Your task to perform on an android device: What's US dollar exchange rate against the South Korean Won? Image 0: 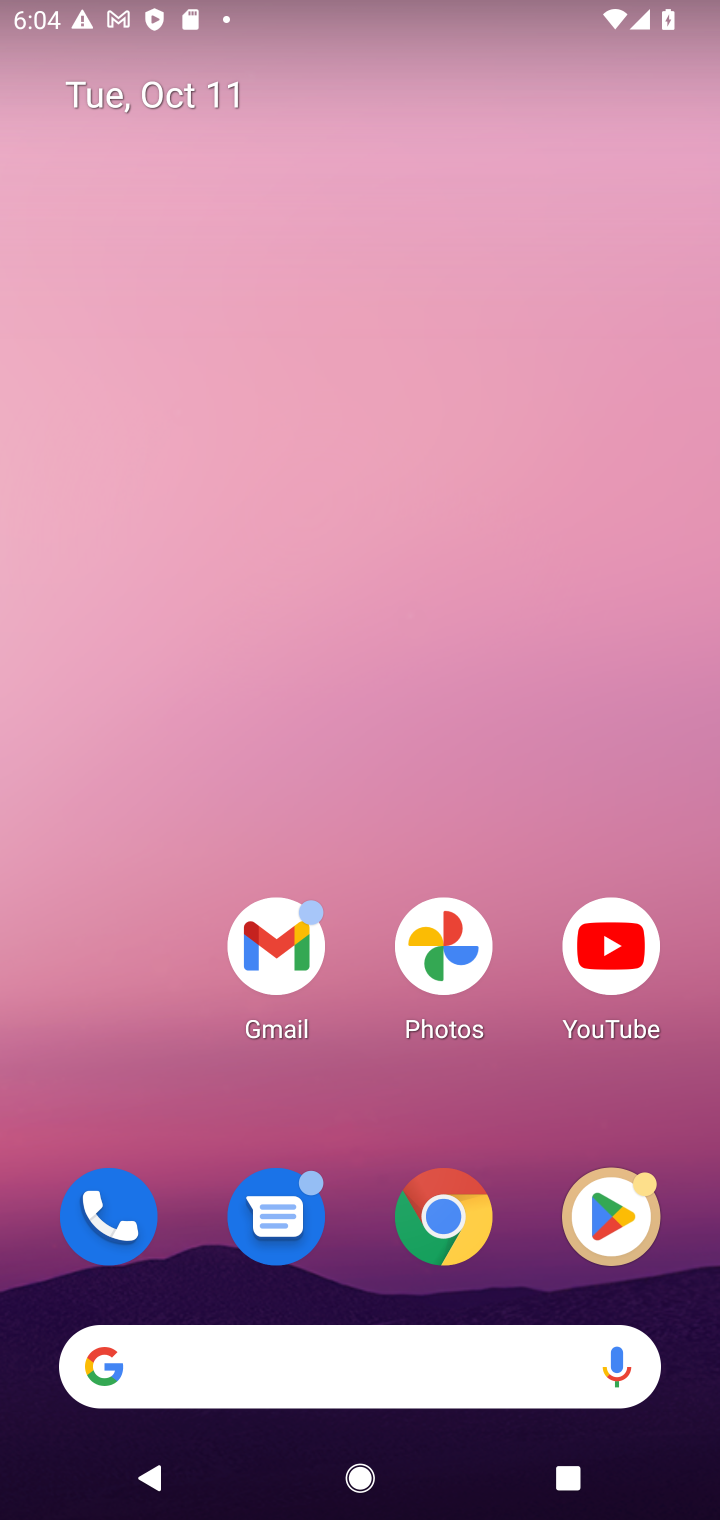
Step 0: click (442, 1211)
Your task to perform on an android device: What's US dollar exchange rate against the South Korean Won? Image 1: 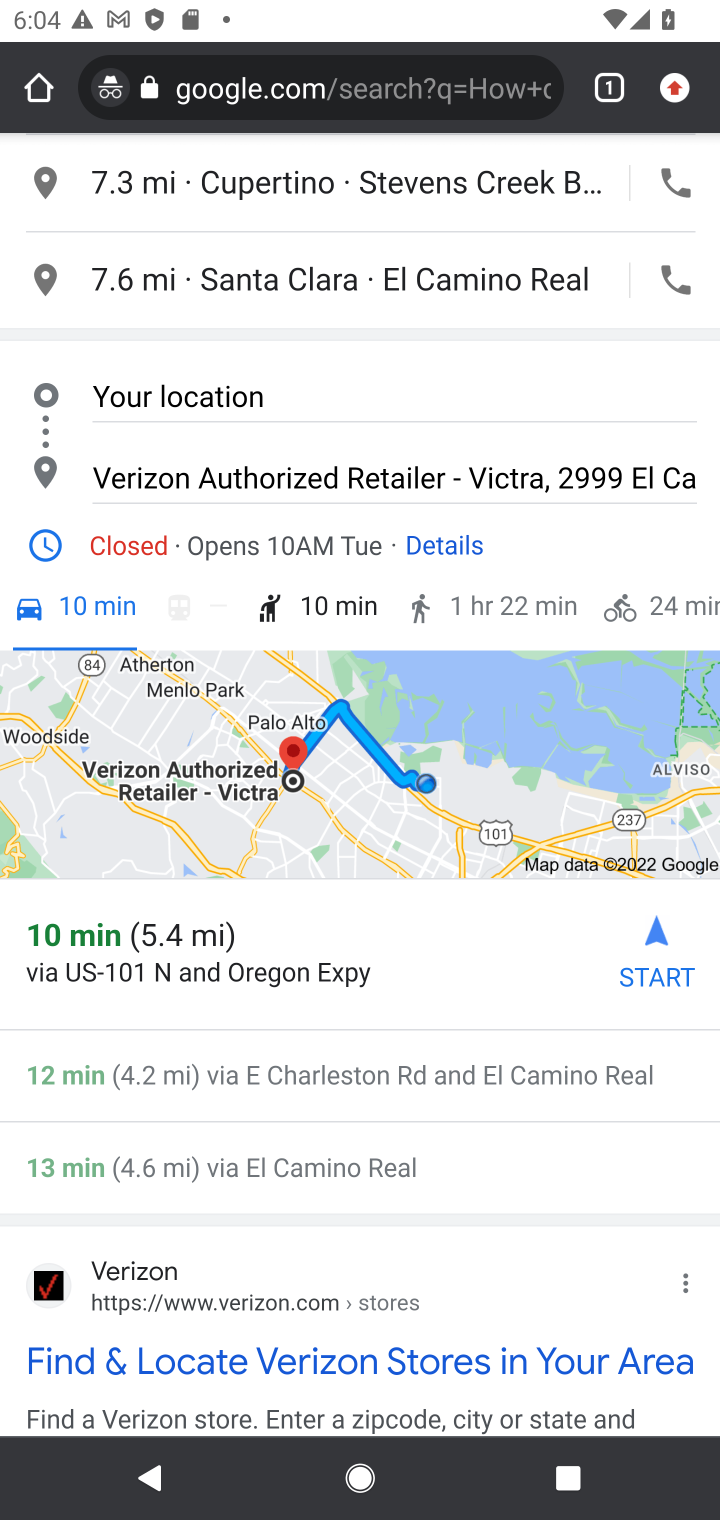
Step 1: click (382, 99)
Your task to perform on an android device: What's US dollar exchange rate against the South Korean Won? Image 2: 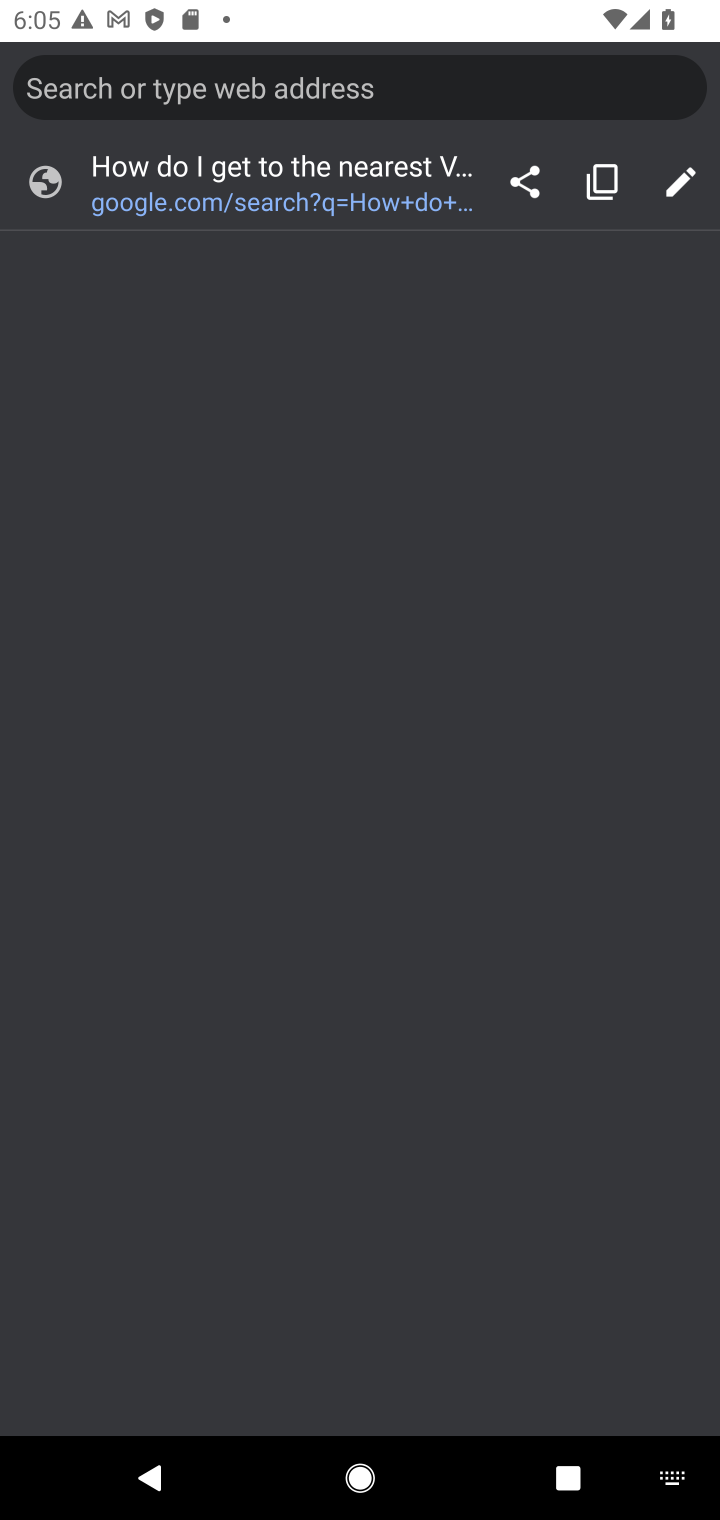
Step 2: type "What's US dollar exchange rate against the South Korean Won?"
Your task to perform on an android device: What's US dollar exchange rate against the South Korean Won? Image 3: 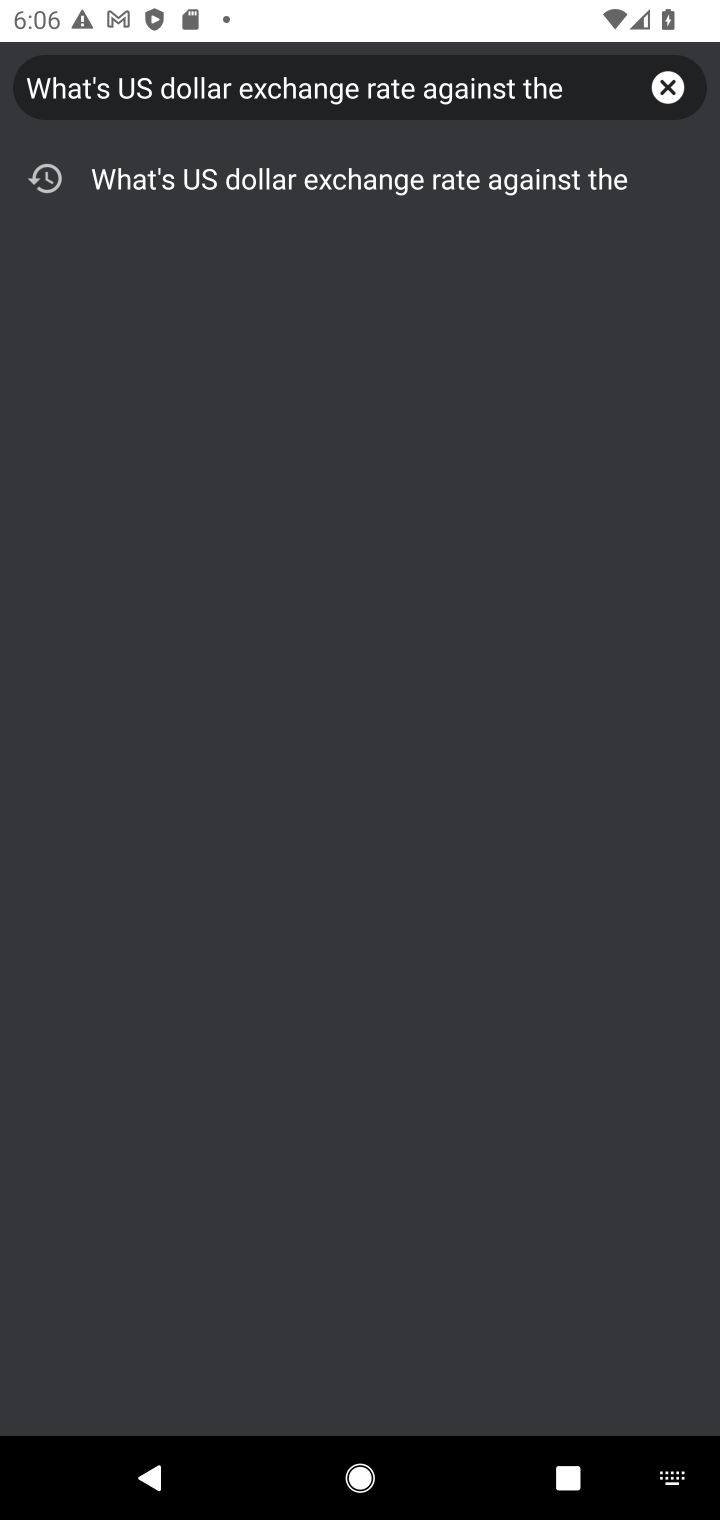
Step 3: type "South Korean Won?"
Your task to perform on an android device: What's US dollar exchange rate against the South Korean Won? Image 4: 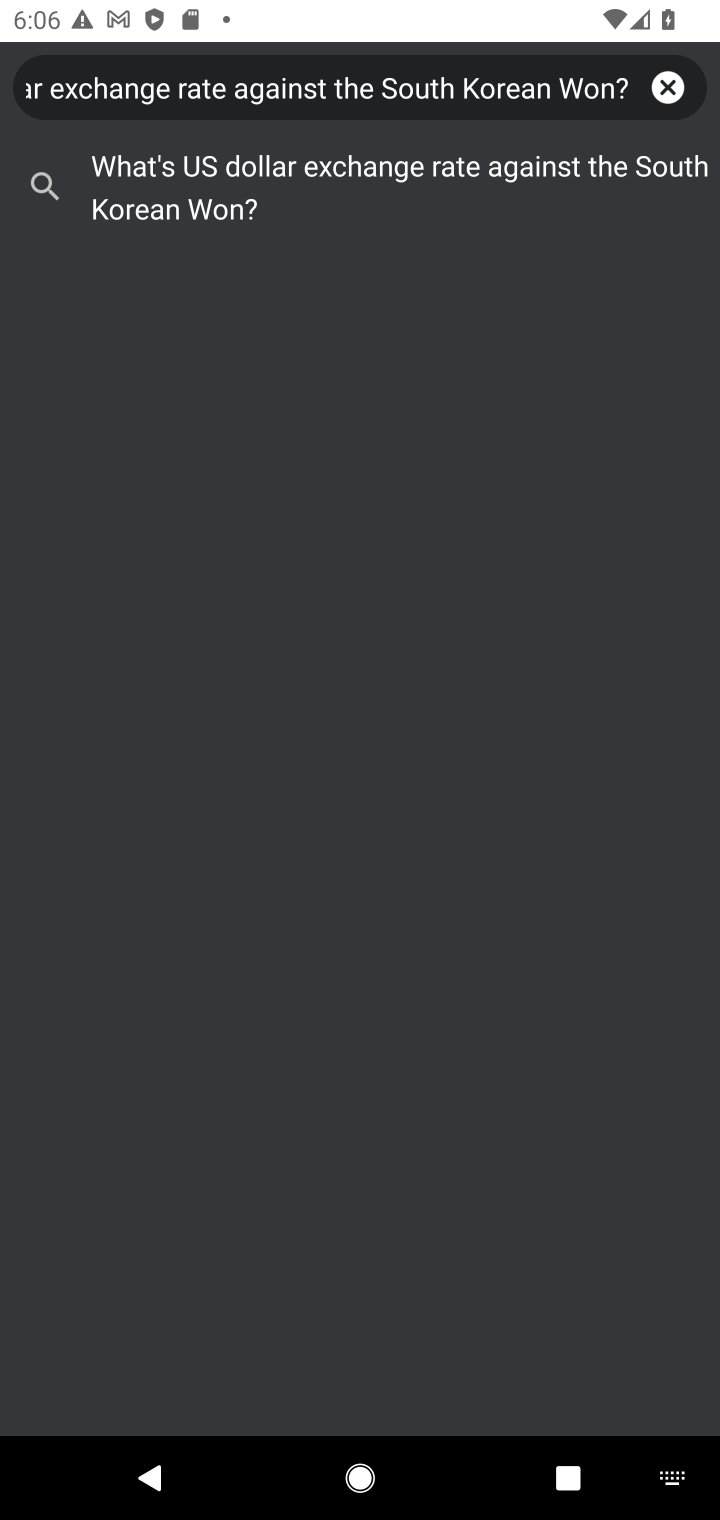
Step 4: click (277, 191)
Your task to perform on an android device: What's US dollar exchange rate against the South Korean Won? Image 5: 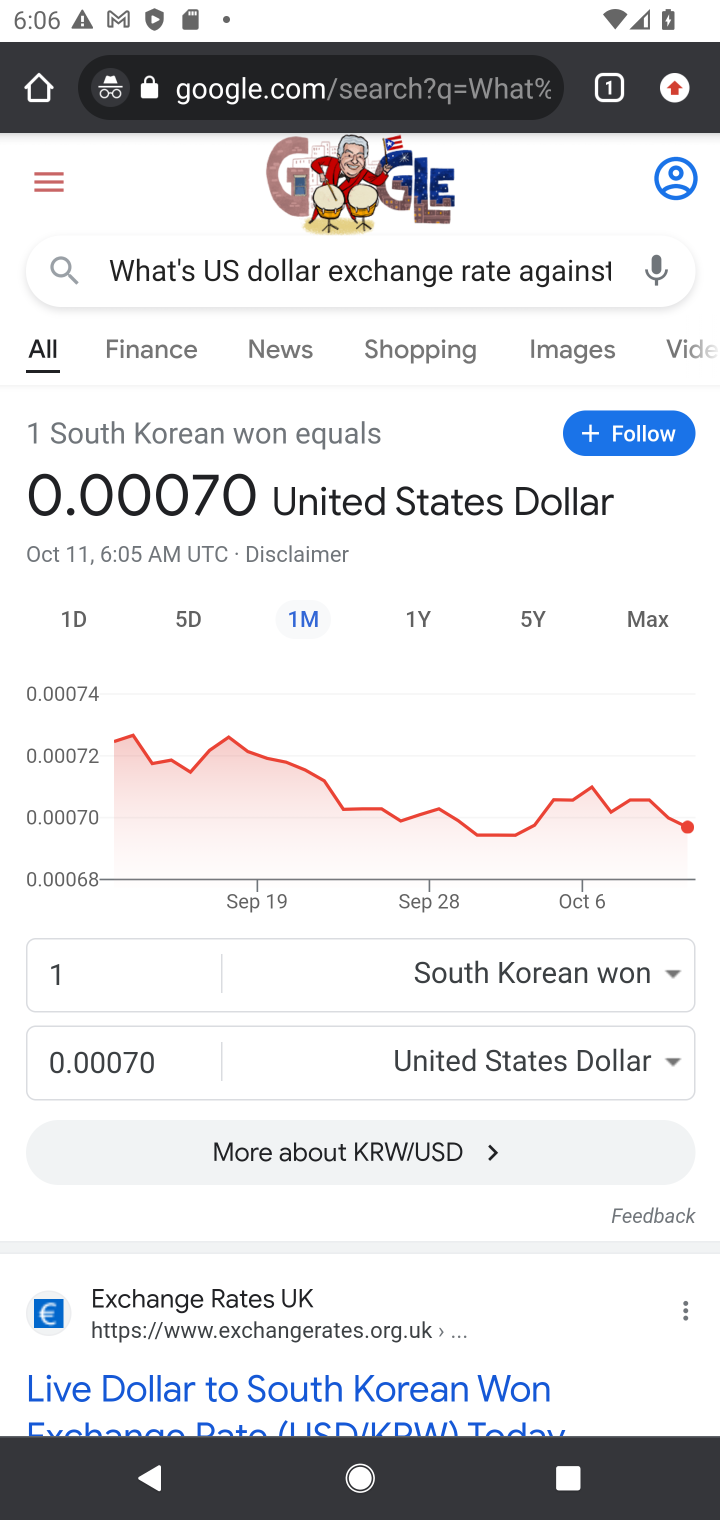
Step 5: task complete